Your task to perform on an android device: Open my contact list Image 0: 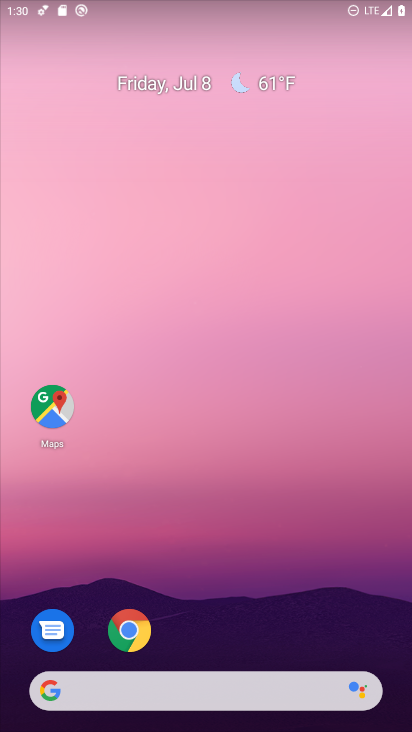
Step 0: drag from (400, 627) to (252, 122)
Your task to perform on an android device: Open my contact list Image 1: 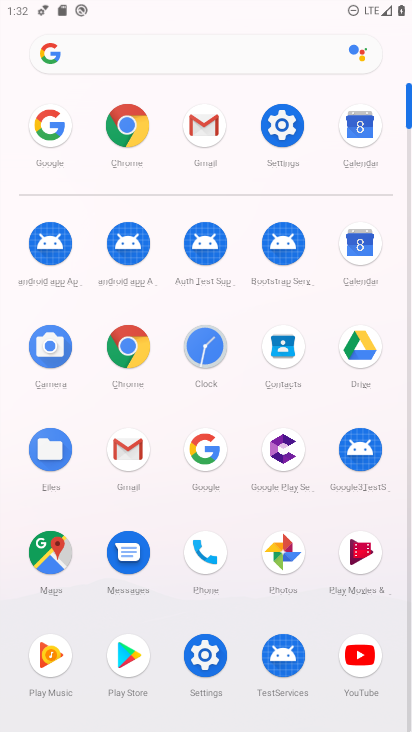
Step 1: click (277, 351)
Your task to perform on an android device: Open my contact list Image 2: 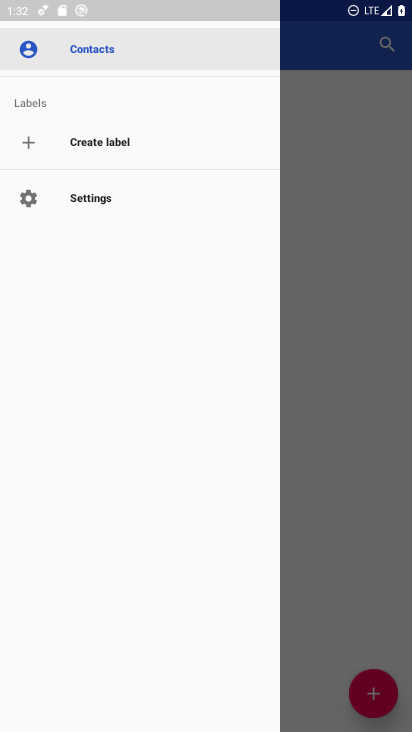
Step 2: task complete